Your task to perform on an android device: turn off priority inbox in the gmail app Image 0: 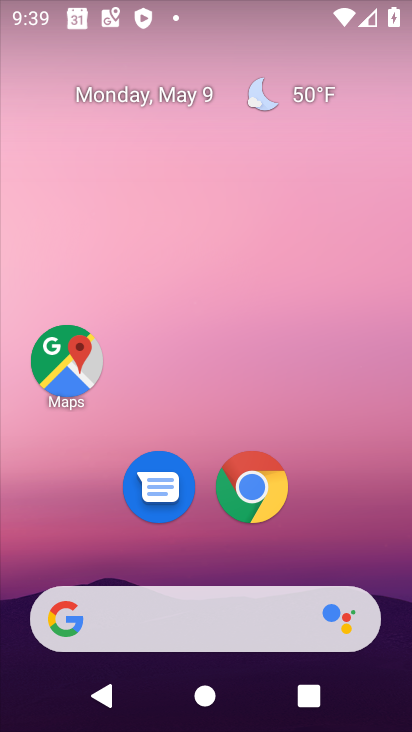
Step 0: press home button
Your task to perform on an android device: turn off priority inbox in the gmail app Image 1: 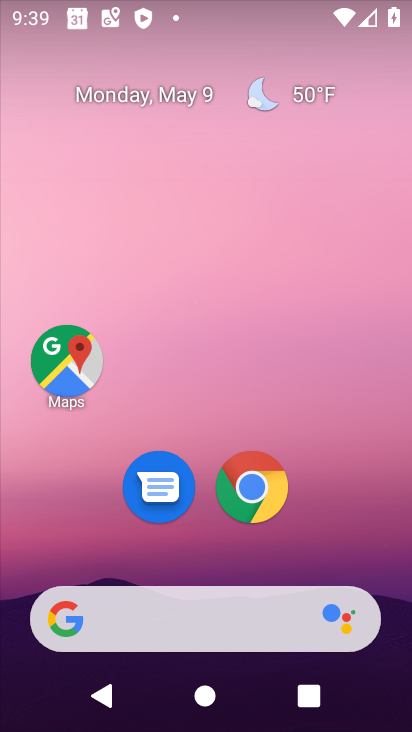
Step 1: drag from (170, 444) to (398, 75)
Your task to perform on an android device: turn off priority inbox in the gmail app Image 2: 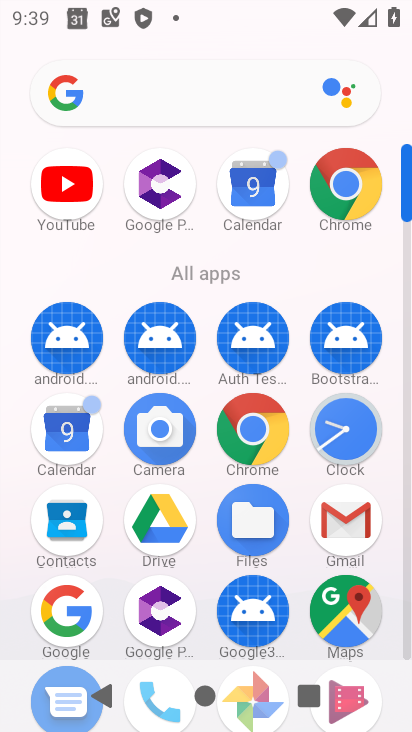
Step 2: click (342, 506)
Your task to perform on an android device: turn off priority inbox in the gmail app Image 3: 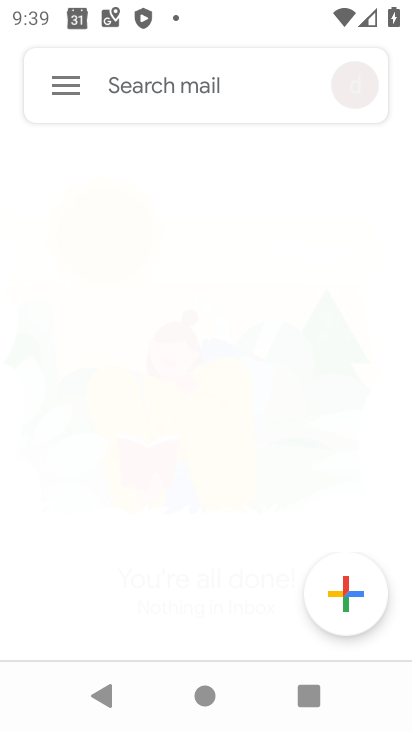
Step 3: click (68, 80)
Your task to perform on an android device: turn off priority inbox in the gmail app Image 4: 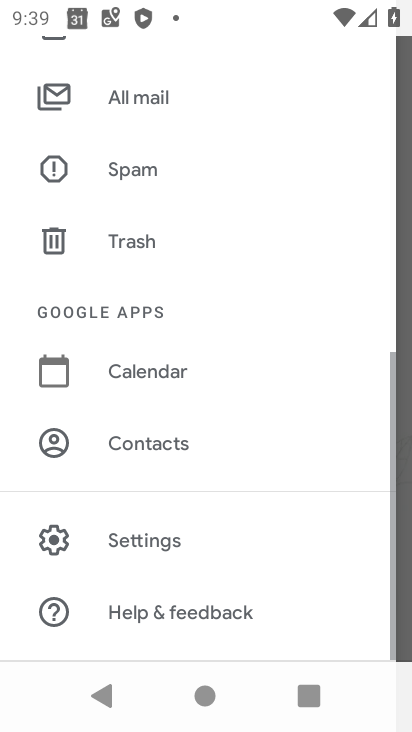
Step 4: drag from (60, 682) to (232, 249)
Your task to perform on an android device: turn off priority inbox in the gmail app Image 5: 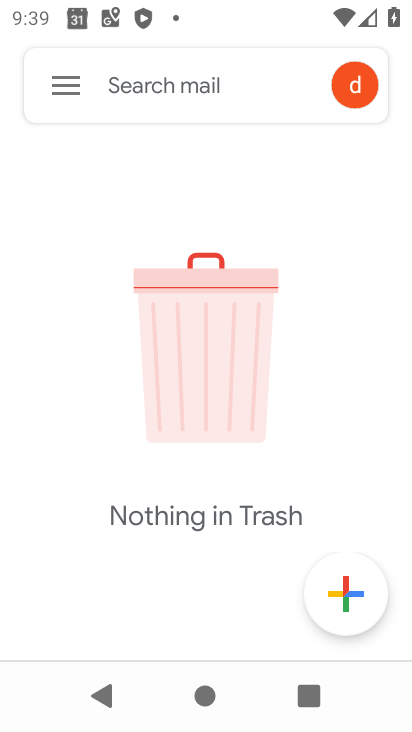
Step 5: click (72, 103)
Your task to perform on an android device: turn off priority inbox in the gmail app Image 6: 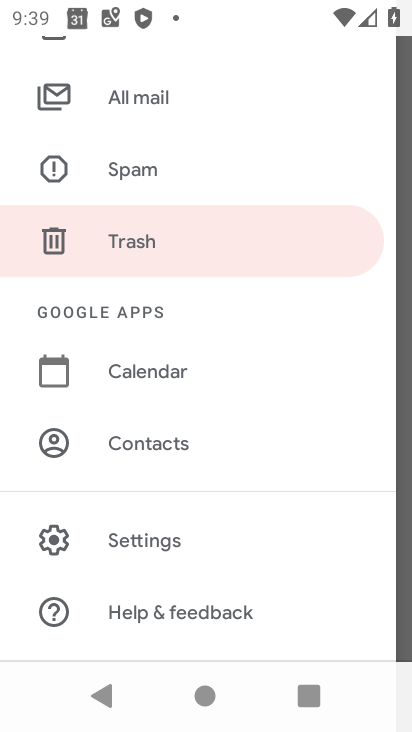
Step 6: click (101, 546)
Your task to perform on an android device: turn off priority inbox in the gmail app Image 7: 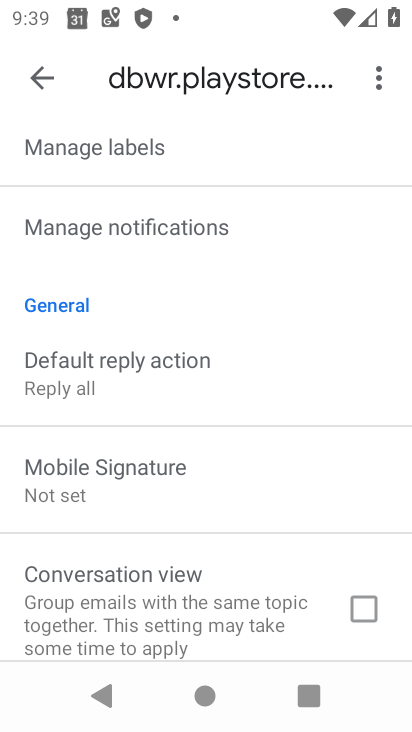
Step 7: drag from (109, 619) to (268, 137)
Your task to perform on an android device: turn off priority inbox in the gmail app Image 8: 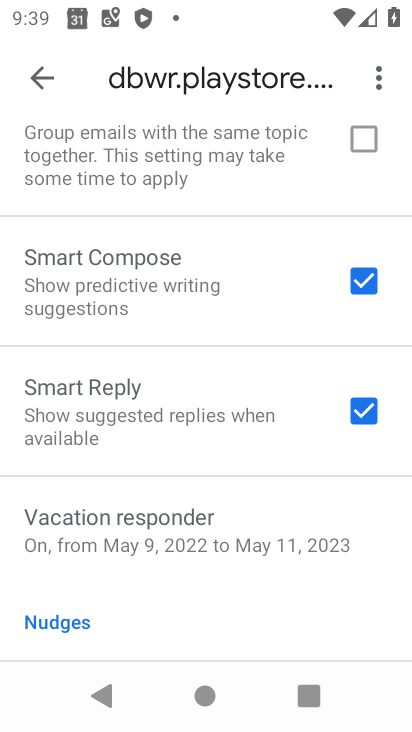
Step 8: drag from (141, 104) to (103, 644)
Your task to perform on an android device: turn off priority inbox in the gmail app Image 9: 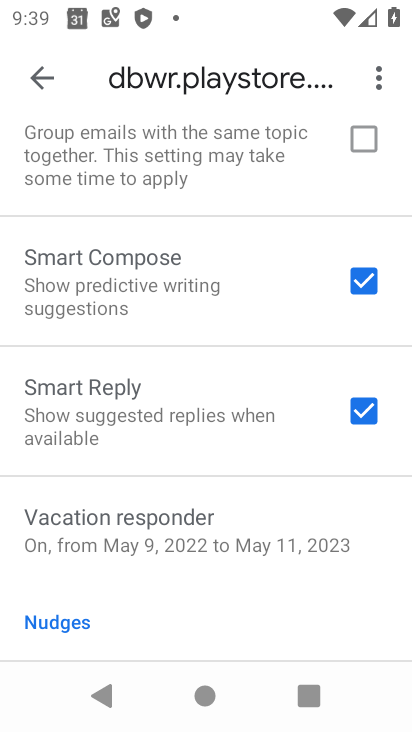
Step 9: drag from (48, 137) to (39, 647)
Your task to perform on an android device: turn off priority inbox in the gmail app Image 10: 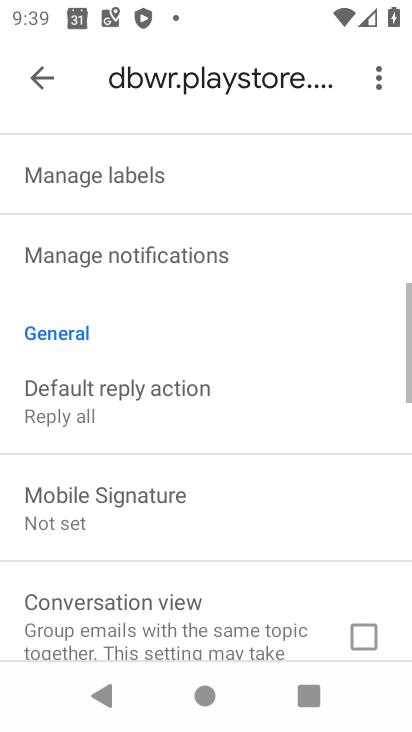
Step 10: drag from (104, 152) to (49, 559)
Your task to perform on an android device: turn off priority inbox in the gmail app Image 11: 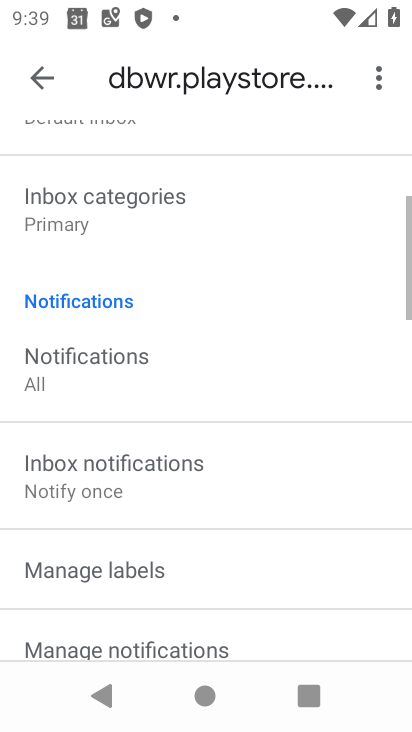
Step 11: drag from (162, 191) to (99, 730)
Your task to perform on an android device: turn off priority inbox in the gmail app Image 12: 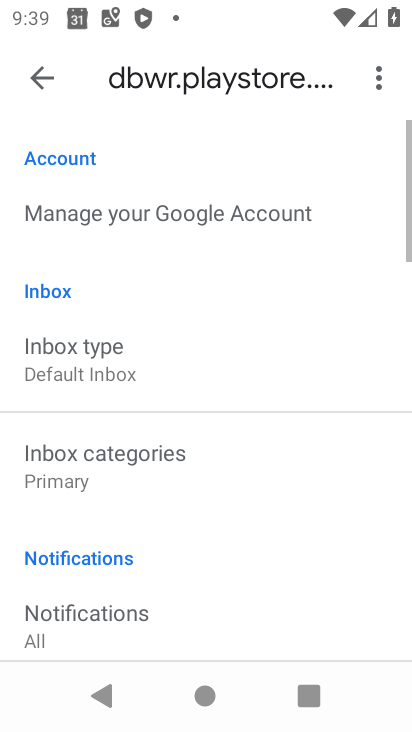
Step 12: drag from (121, 143) to (103, 645)
Your task to perform on an android device: turn off priority inbox in the gmail app Image 13: 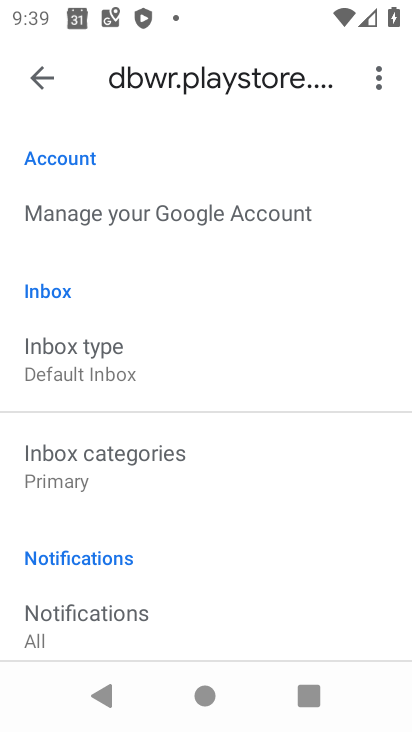
Step 13: click (121, 370)
Your task to perform on an android device: turn off priority inbox in the gmail app Image 14: 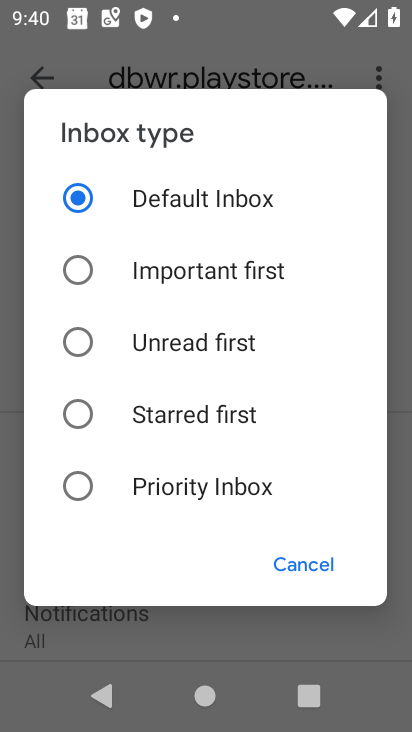
Step 14: click (90, 267)
Your task to perform on an android device: turn off priority inbox in the gmail app Image 15: 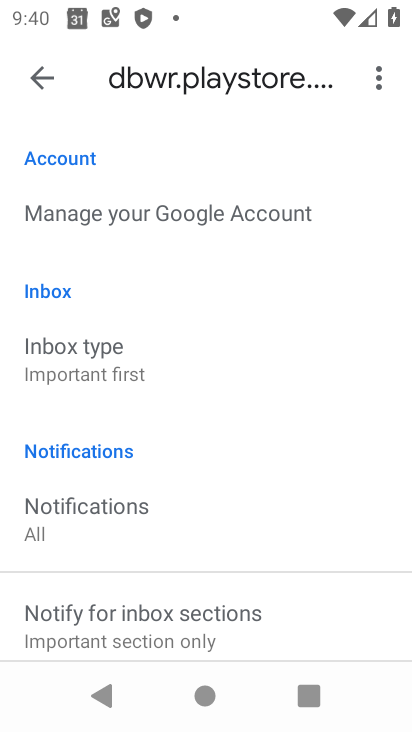
Step 15: task complete